Your task to perform on an android device: turn off picture-in-picture Image 0: 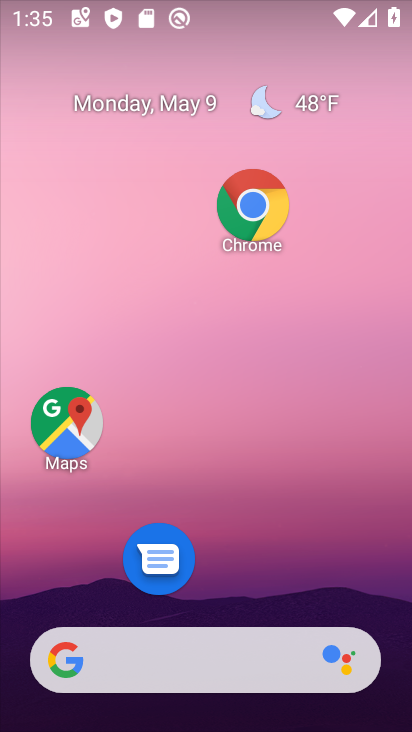
Step 0: drag from (297, 560) to (348, 164)
Your task to perform on an android device: turn off picture-in-picture Image 1: 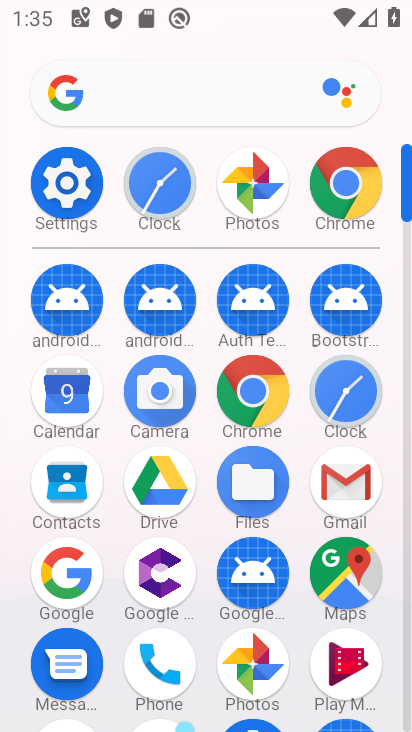
Step 1: click (70, 178)
Your task to perform on an android device: turn off picture-in-picture Image 2: 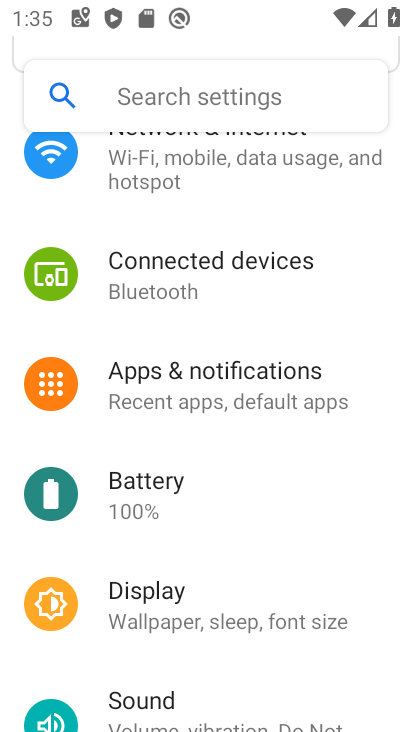
Step 2: click (197, 403)
Your task to perform on an android device: turn off picture-in-picture Image 3: 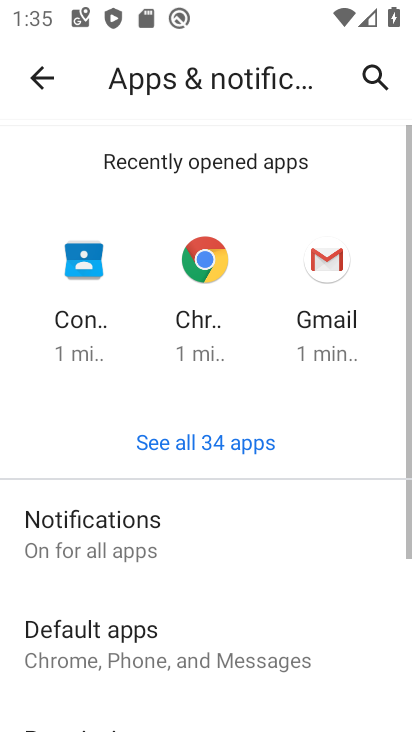
Step 3: drag from (211, 590) to (269, 188)
Your task to perform on an android device: turn off picture-in-picture Image 4: 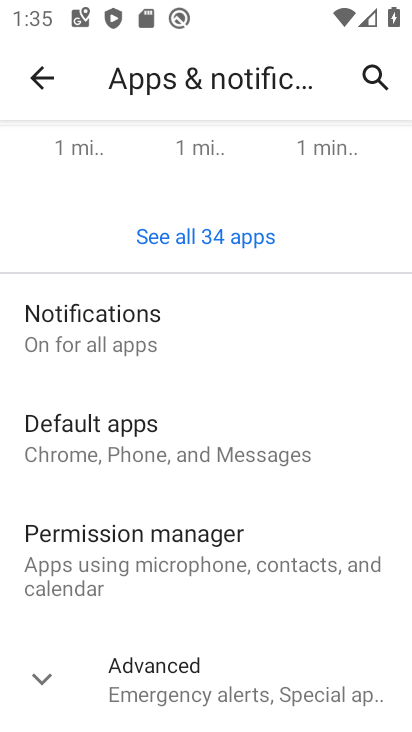
Step 4: click (199, 684)
Your task to perform on an android device: turn off picture-in-picture Image 5: 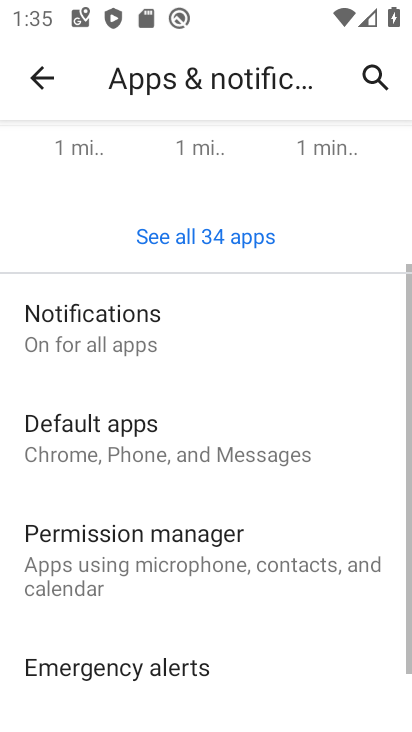
Step 5: drag from (207, 666) to (250, 188)
Your task to perform on an android device: turn off picture-in-picture Image 6: 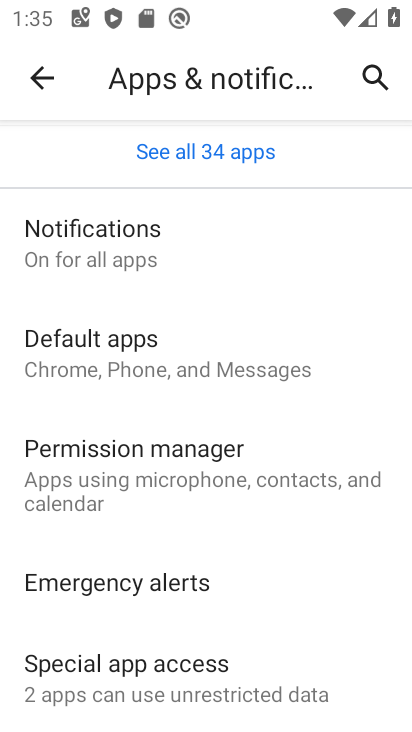
Step 6: click (187, 682)
Your task to perform on an android device: turn off picture-in-picture Image 7: 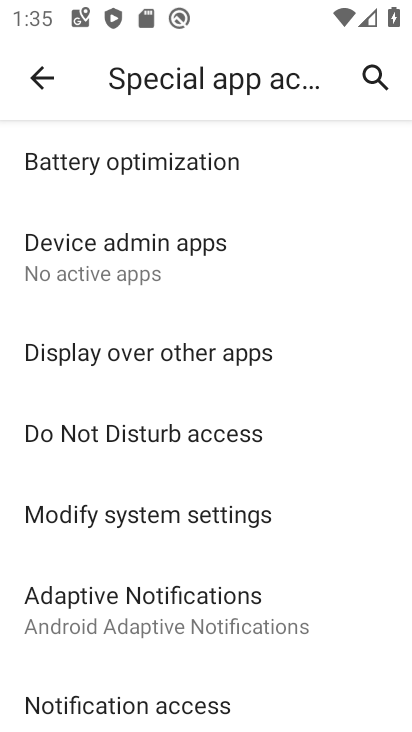
Step 7: drag from (262, 647) to (305, 178)
Your task to perform on an android device: turn off picture-in-picture Image 8: 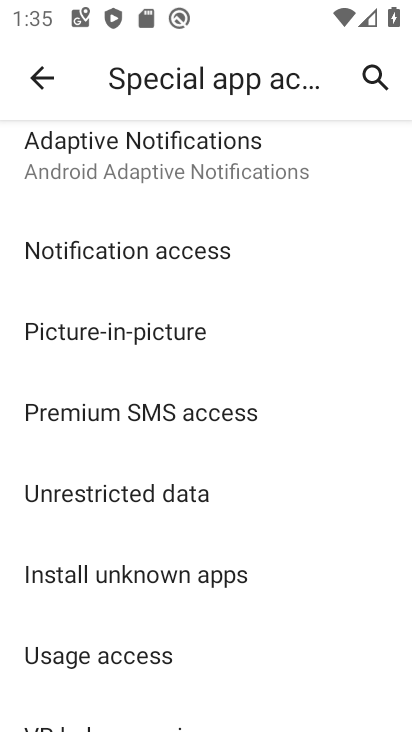
Step 8: click (156, 328)
Your task to perform on an android device: turn off picture-in-picture Image 9: 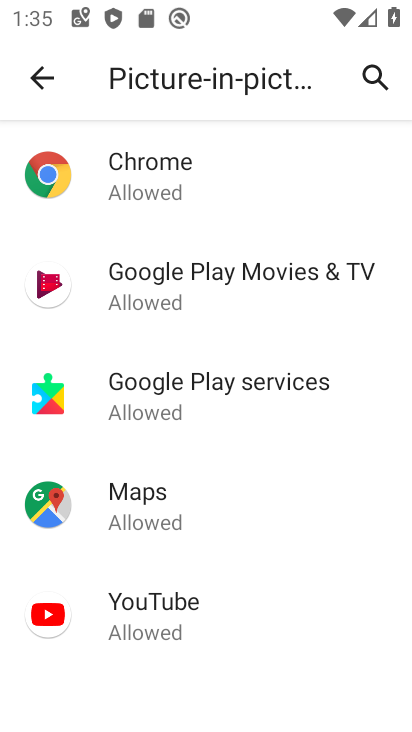
Step 9: click (154, 610)
Your task to perform on an android device: turn off picture-in-picture Image 10: 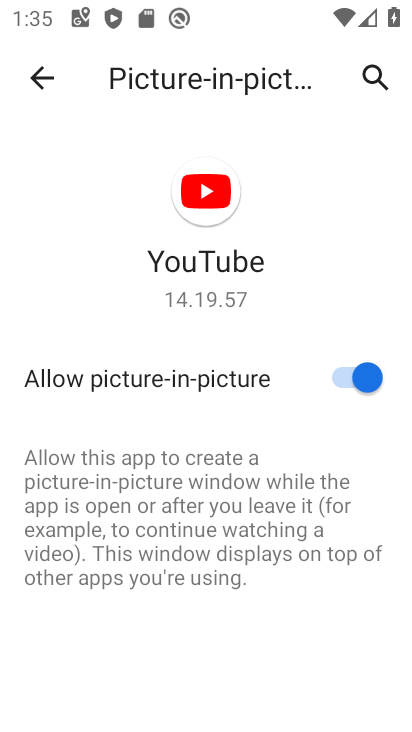
Step 10: click (333, 369)
Your task to perform on an android device: turn off picture-in-picture Image 11: 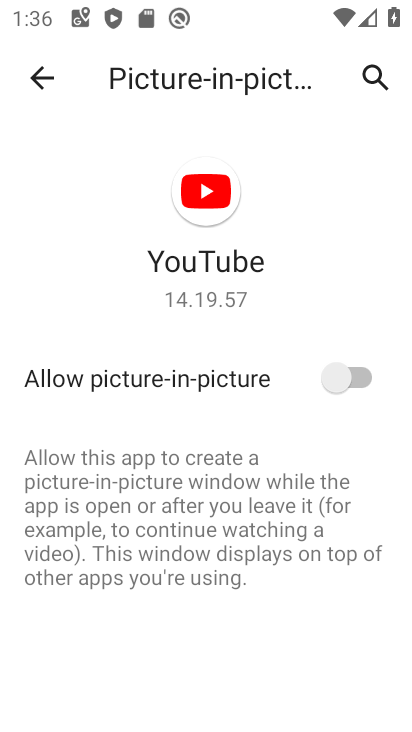
Step 11: task complete